Your task to perform on an android device: toggle show notifications on the lock screen Image 0: 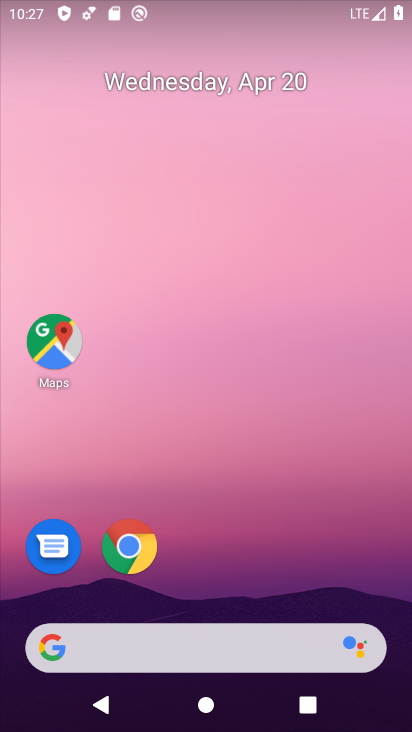
Step 0: drag from (219, 563) to (184, 95)
Your task to perform on an android device: toggle show notifications on the lock screen Image 1: 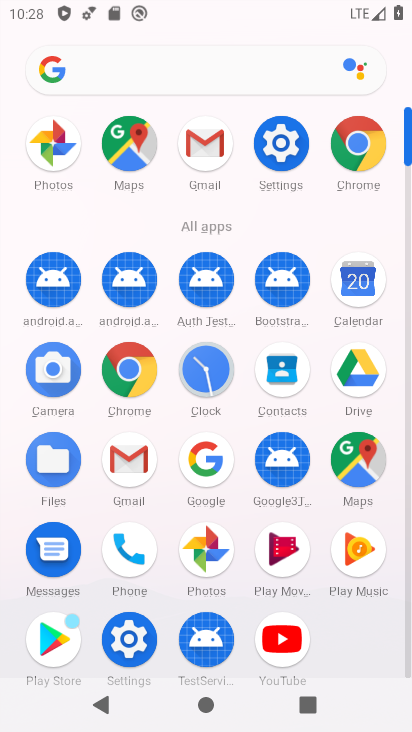
Step 1: click (289, 136)
Your task to perform on an android device: toggle show notifications on the lock screen Image 2: 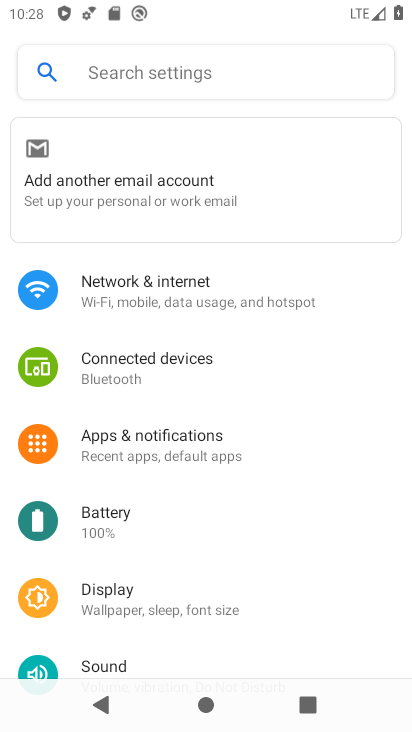
Step 2: click (147, 432)
Your task to perform on an android device: toggle show notifications on the lock screen Image 3: 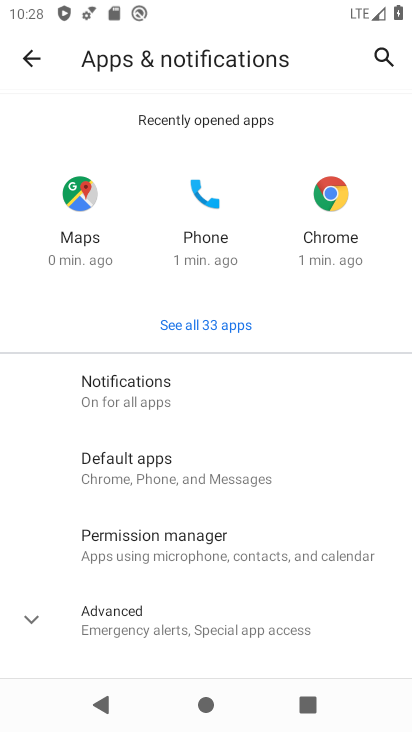
Step 3: click (131, 397)
Your task to perform on an android device: toggle show notifications on the lock screen Image 4: 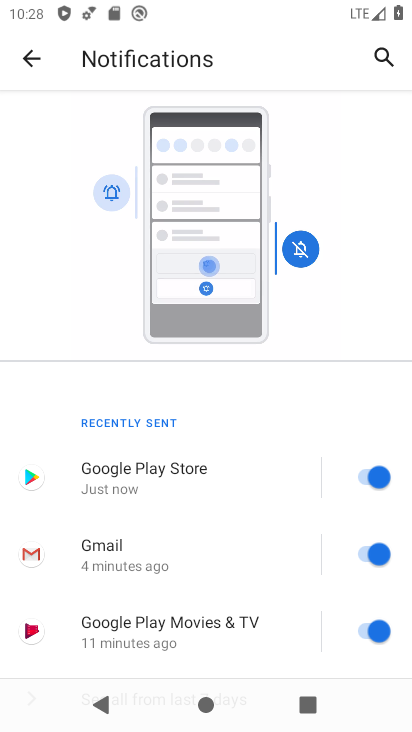
Step 4: drag from (145, 617) to (148, 451)
Your task to perform on an android device: toggle show notifications on the lock screen Image 5: 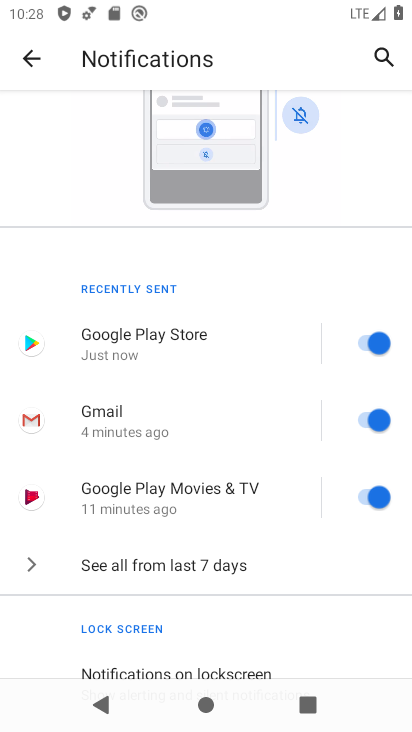
Step 5: drag from (168, 624) to (157, 415)
Your task to perform on an android device: toggle show notifications on the lock screen Image 6: 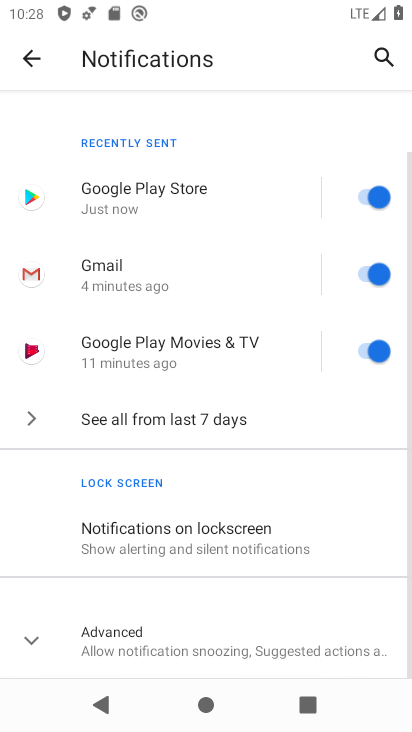
Step 6: click (180, 532)
Your task to perform on an android device: toggle show notifications on the lock screen Image 7: 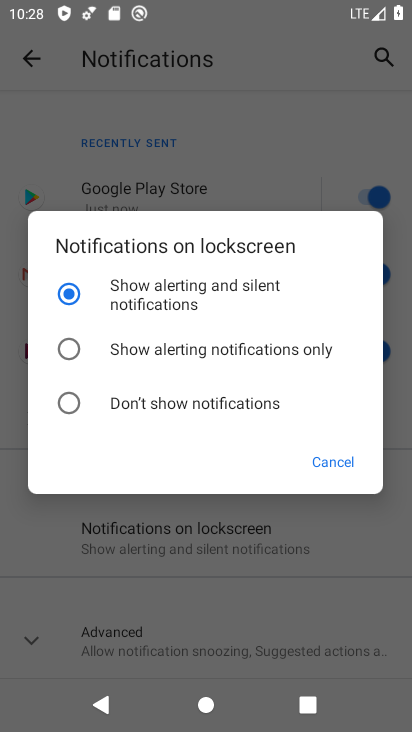
Step 7: click (157, 344)
Your task to perform on an android device: toggle show notifications on the lock screen Image 8: 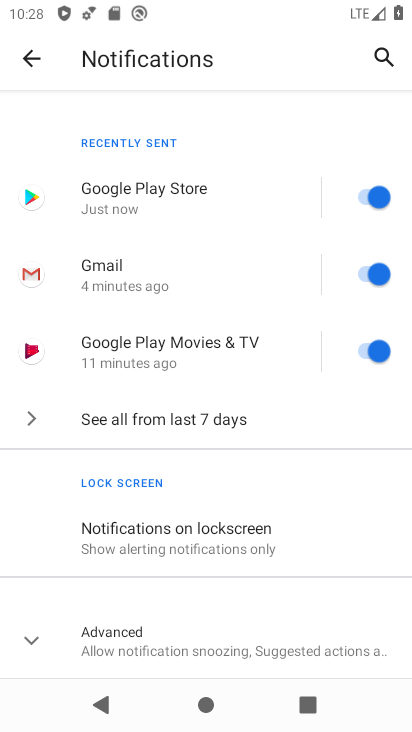
Step 8: task complete